Your task to perform on an android device: change notification settings in the gmail app Image 0: 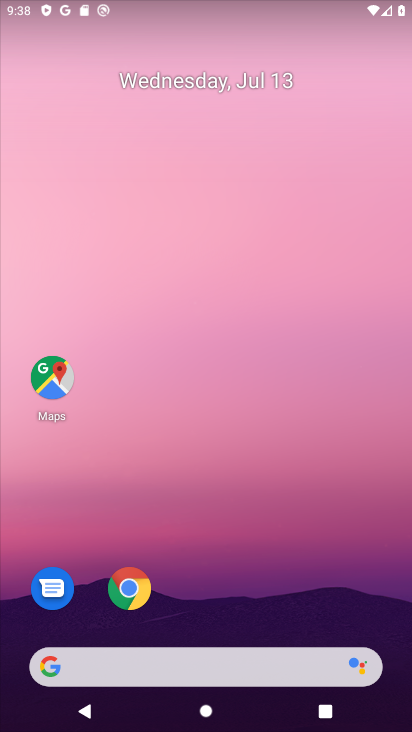
Step 0: drag from (200, 597) to (230, 65)
Your task to perform on an android device: change notification settings in the gmail app Image 1: 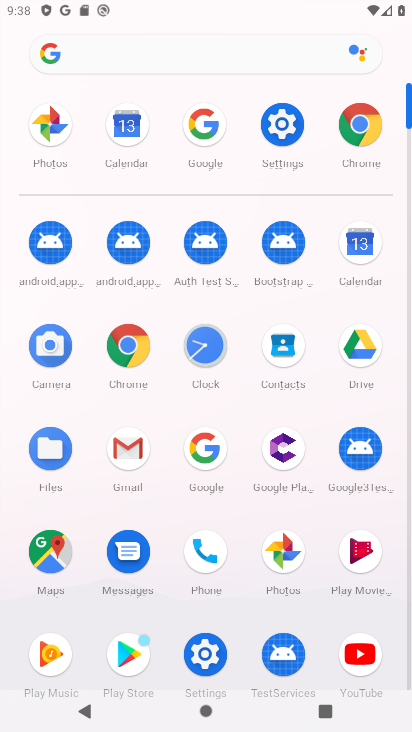
Step 1: click (126, 449)
Your task to perform on an android device: change notification settings in the gmail app Image 2: 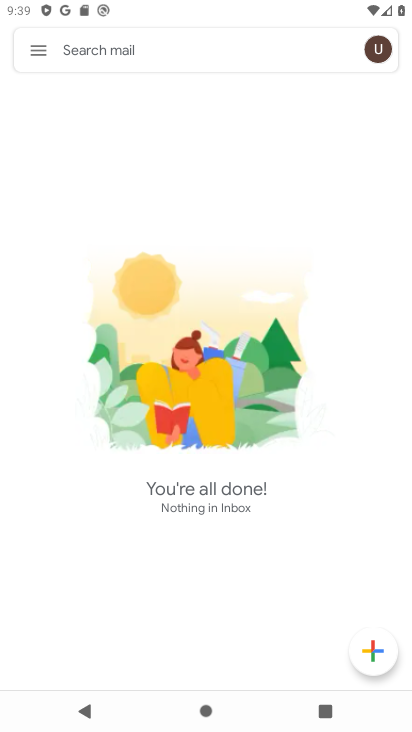
Step 2: click (35, 51)
Your task to perform on an android device: change notification settings in the gmail app Image 3: 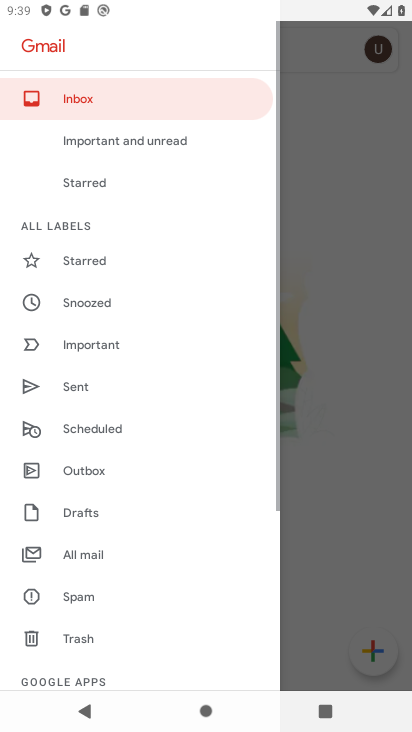
Step 3: drag from (135, 649) to (130, 232)
Your task to perform on an android device: change notification settings in the gmail app Image 4: 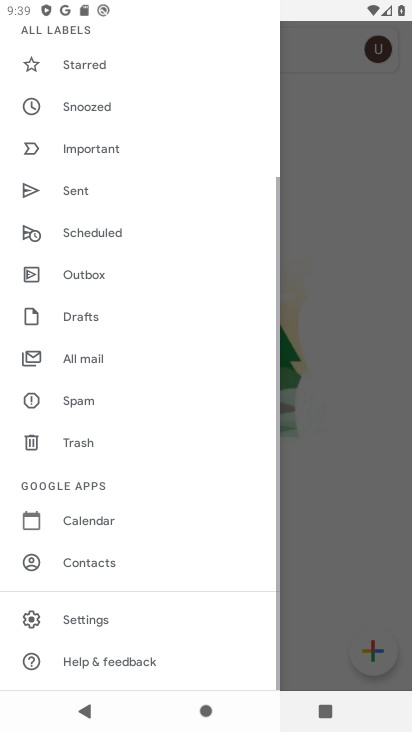
Step 4: click (102, 617)
Your task to perform on an android device: change notification settings in the gmail app Image 5: 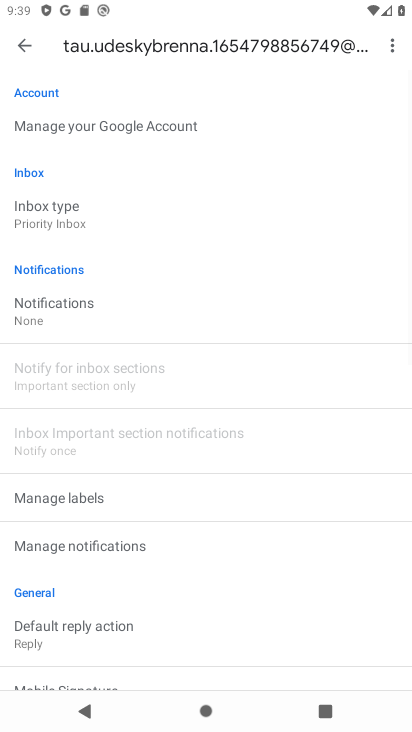
Step 5: click (66, 302)
Your task to perform on an android device: change notification settings in the gmail app Image 6: 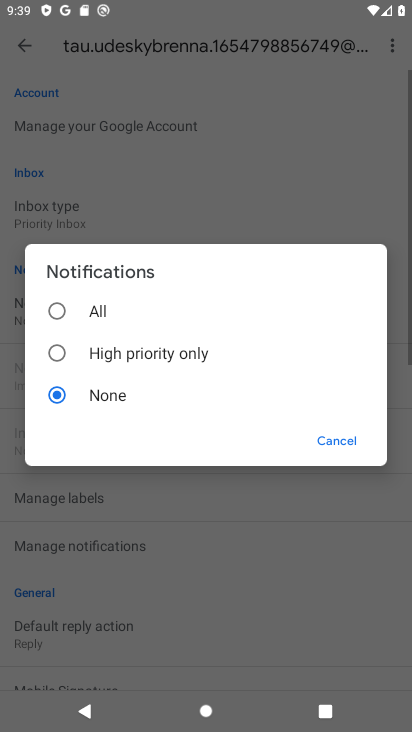
Step 6: click (63, 312)
Your task to perform on an android device: change notification settings in the gmail app Image 7: 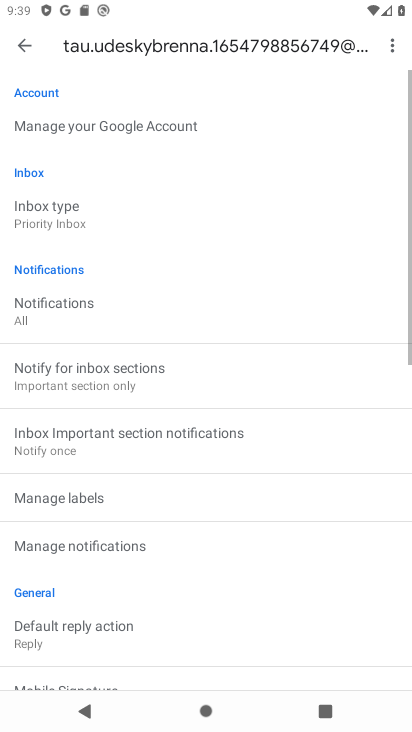
Step 7: task complete